Your task to perform on an android device: turn off wifi Image 0: 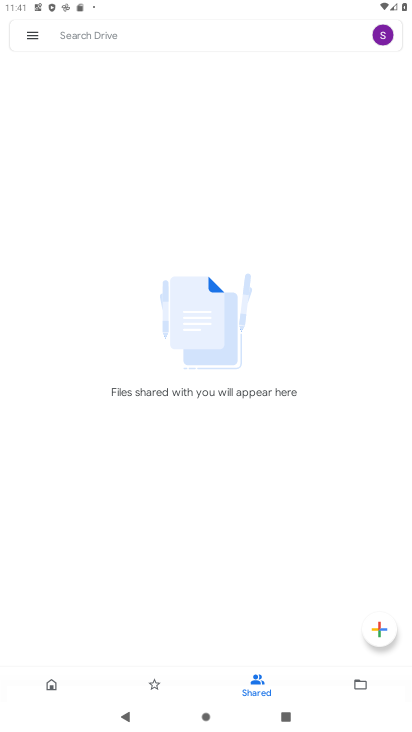
Step 0: press home button
Your task to perform on an android device: turn off wifi Image 1: 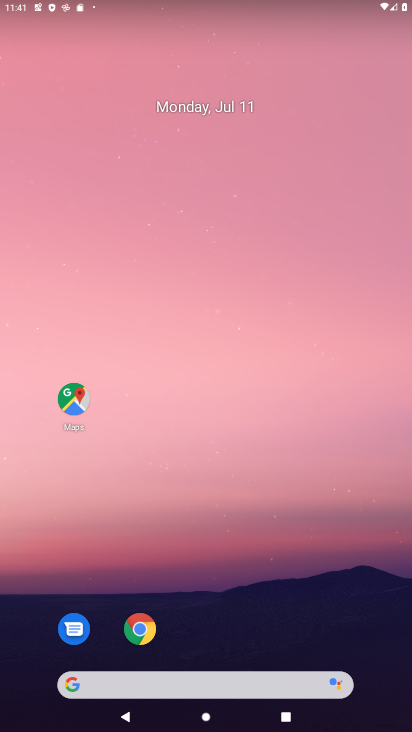
Step 1: drag from (264, 608) to (230, 26)
Your task to perform on an android device: turn off wifi Image 2: 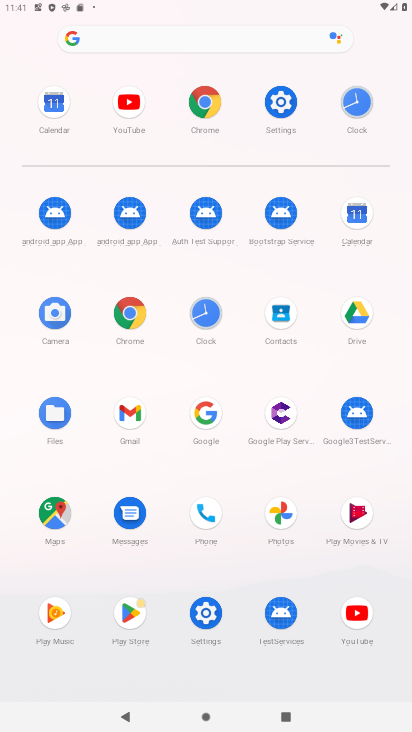
Step 2: click (275, 104)
Your task to perform on an android device: turn off wifi Image 3: 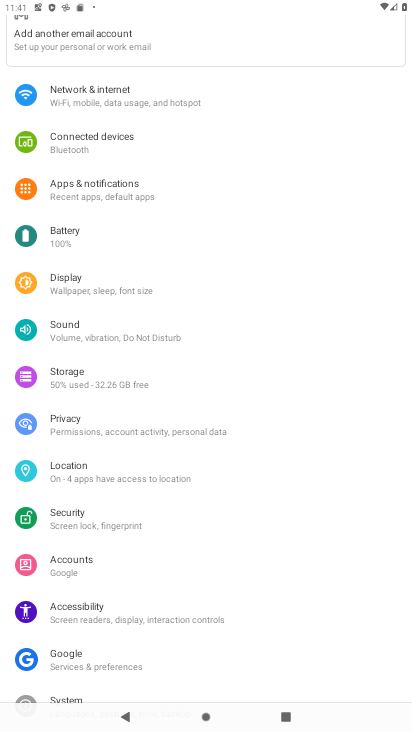
Step 3: click (199, 104)
Your task to perform on an android device: turn off wifi Image 4: 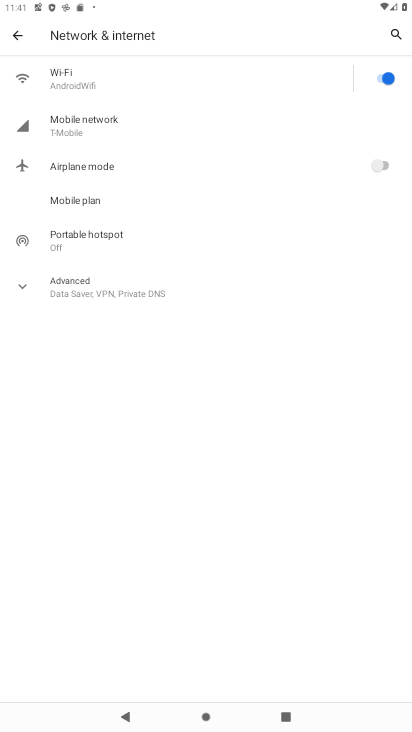
Step 4: click (370, 76)
Your task to perform on an android device: turn off wifi Image 5: 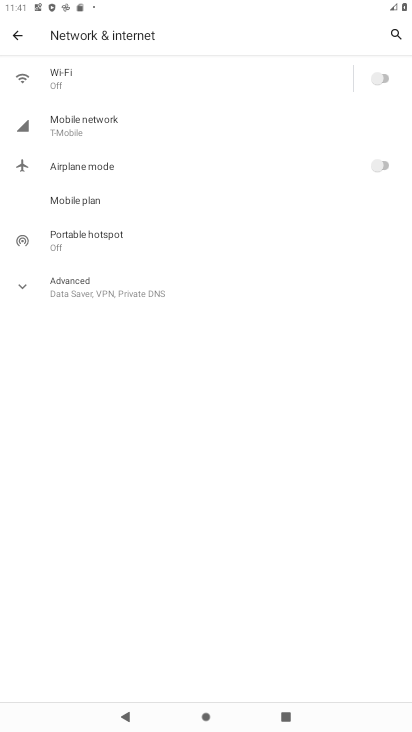
Step 5: task complete